Your task to perform on an android device: toggle data saver in the chrome app Image 0: 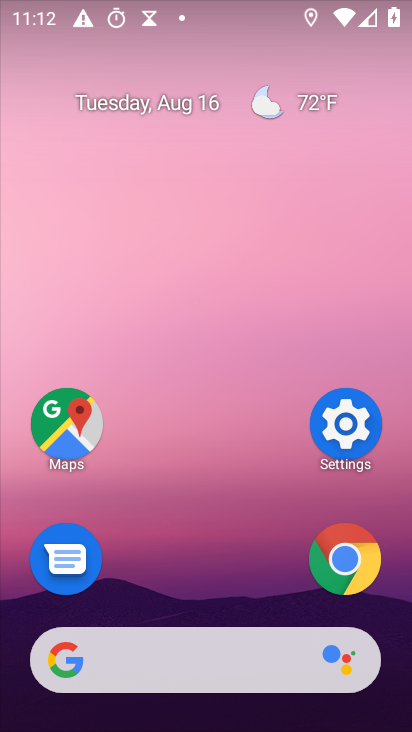
Step 0: click (346, 562)
Your task to perform on an android device: toggle data saver in the chrome app Image 1: 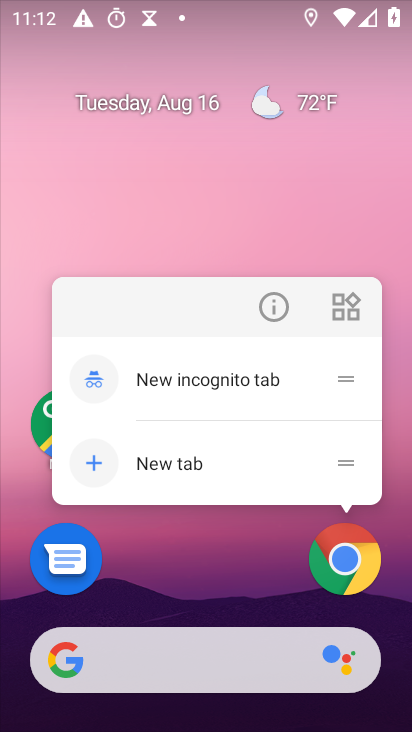
Step 1: click (346, 562)
Your task to perform on an android device: toggle data saver in the chrome app Image 2: 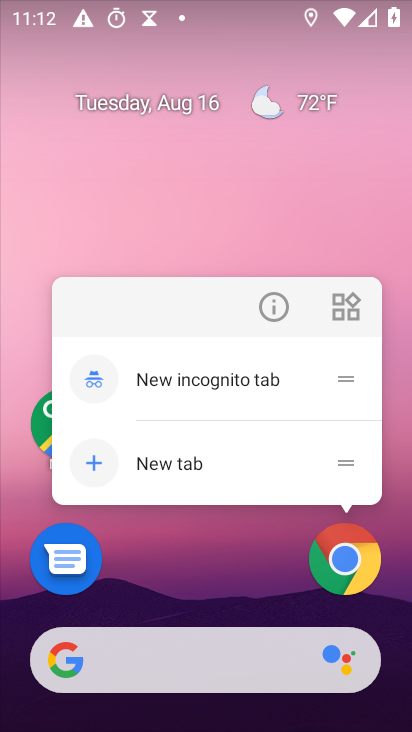
Step 2: click (353, 577)
Your task to perform on an android device: toggle data saver in the chrome app Image 3: 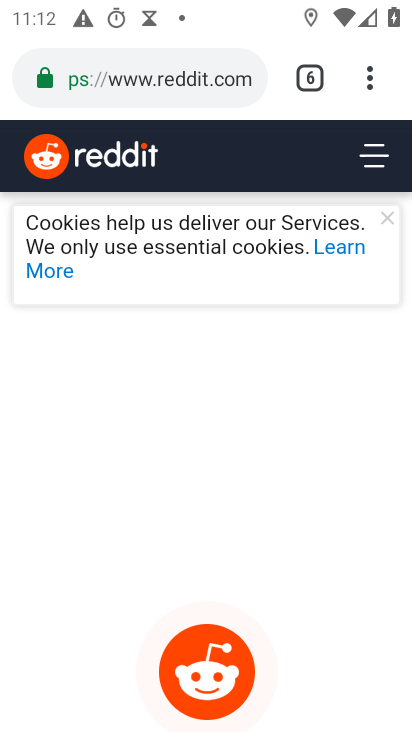
Step 3: drag from (370, 78) to (269, 600)
Your task to perform on an android device: toggle data saver in the chrome app Image 4: 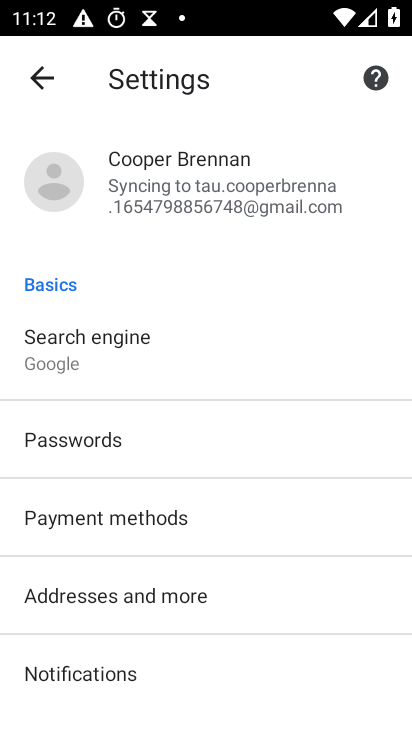
Step 4: drag from (180, 635) to (284, 115)
Your task to perform on an android device: toggle data saver in the chrome app Image 5: 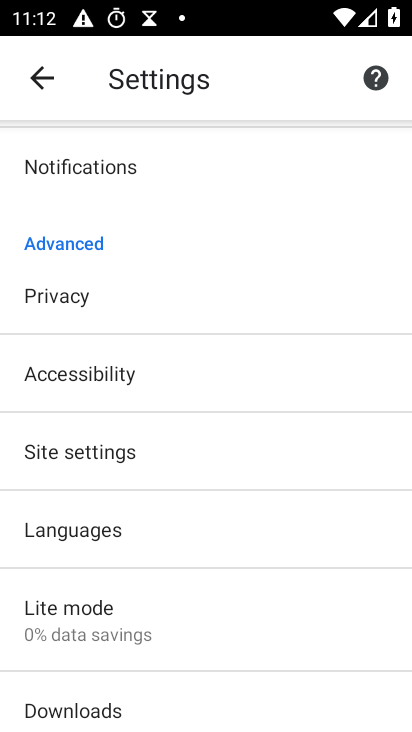
Step 5: click (112, 600)
Your task to perform on an android device: toggle data saver in the chrome app Image 6: 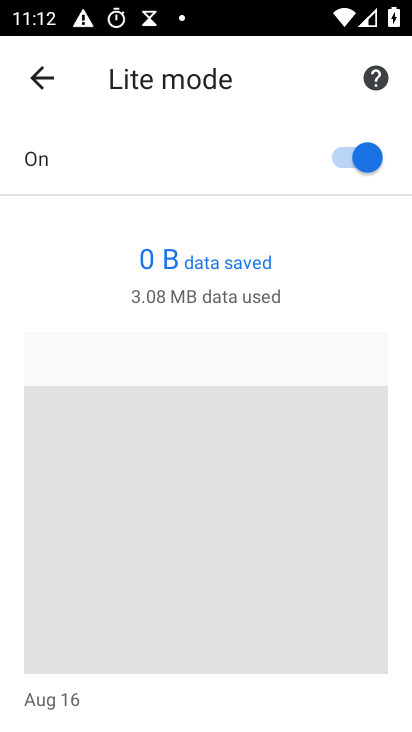
Step 6: click (351, 154)
Your task to perform on an android device: toggle data saver in the chrome app Image 7: 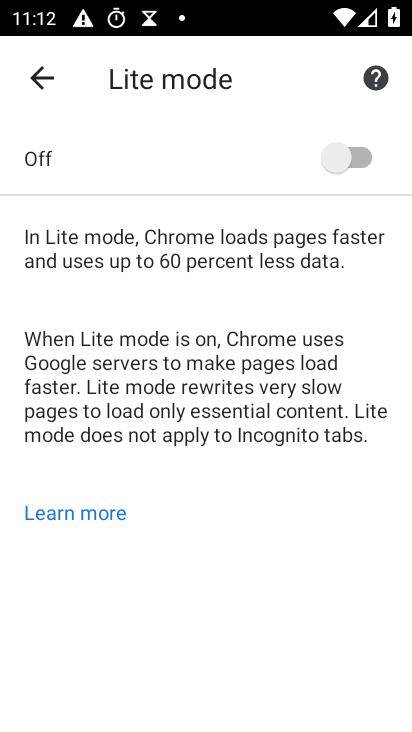
Step 7: task complete